Your task to perform on an android device: toggle data saver in the chrome app Image 0: 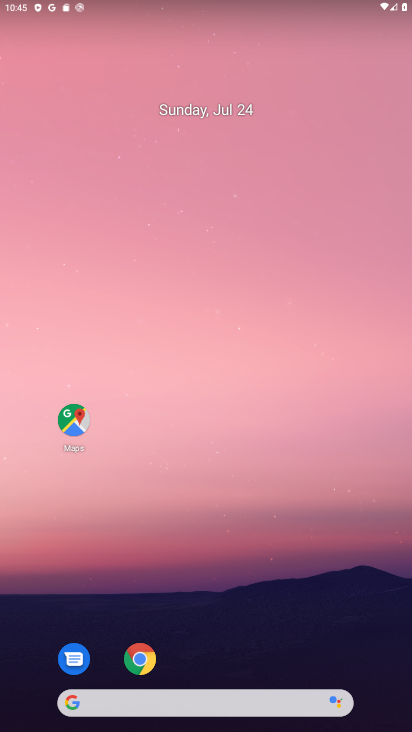
Step 0: drag from (169, 692) to (189, 213)
Your task to perform on an android device: toggle data saver in the chrome app Image 1: 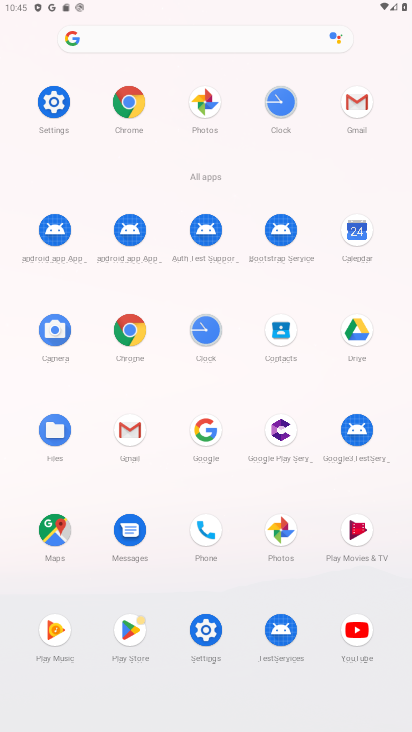
Step 1: click (133, 105)
Your task to perform on an android device: toggle data saver in the chrome app Image 2: 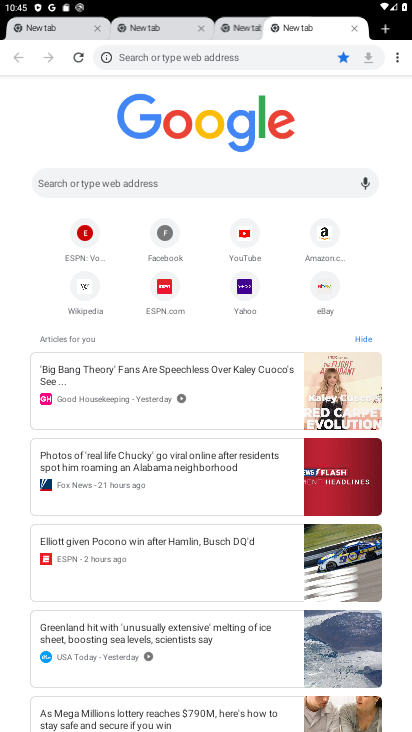
Step 2: click (403, 55)
Your task to perform on an android device: toggle data saver in the chrome app Image 3: 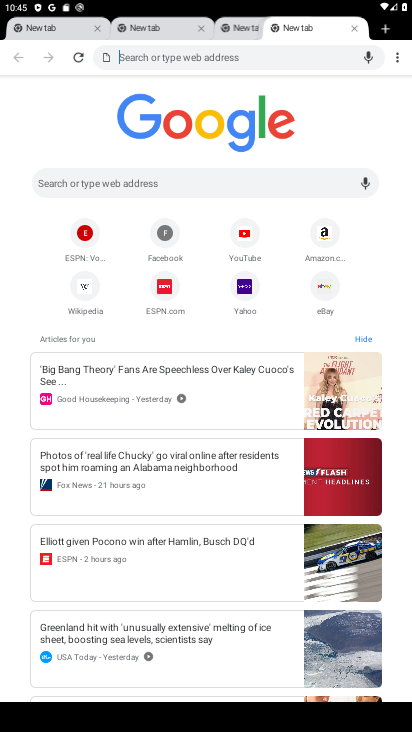
Step 3: click (397, 53)
Your task to perform on an android device: toggle data saver in the chrome app Image 4: 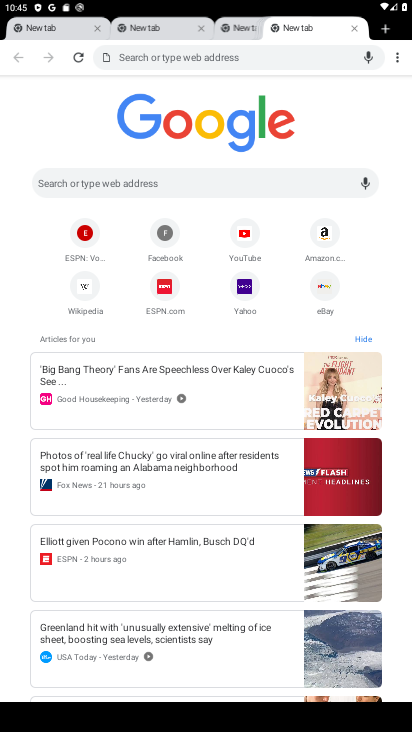
Step 4: click (405, 50)
Your task to perform on an android device: toggle data saver in the chrome app Image 5: 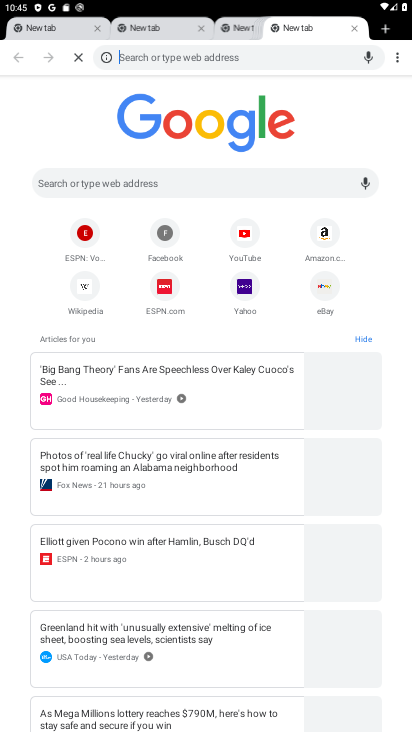
Step 5: click (405, 50)
Your task to perform on an android device: toggle data saver in the chrome app Image 6: 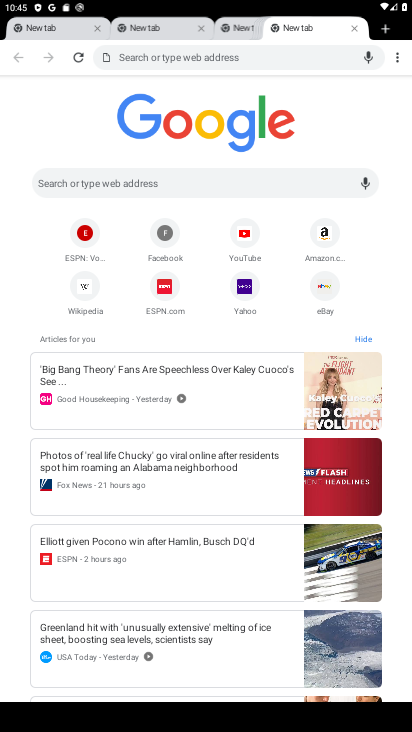
Step 6: click (400, 61)
Your task to perform on an android device: toggle data saver in the chrome app Image 7: 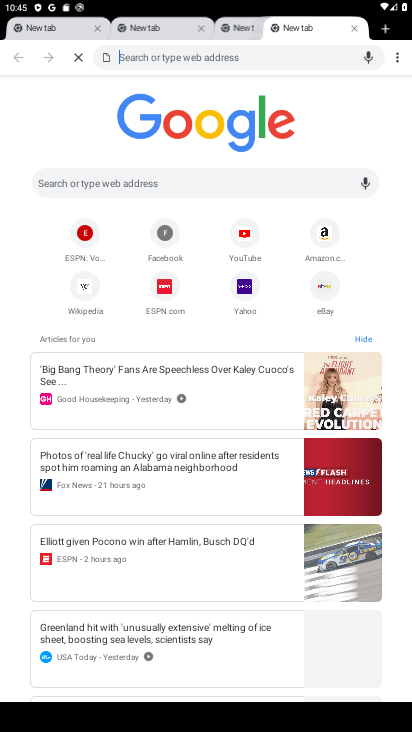
Step 7: click (400, 61)
Your task to perform on an android device: toggle data saver in the chrome app Image 8: 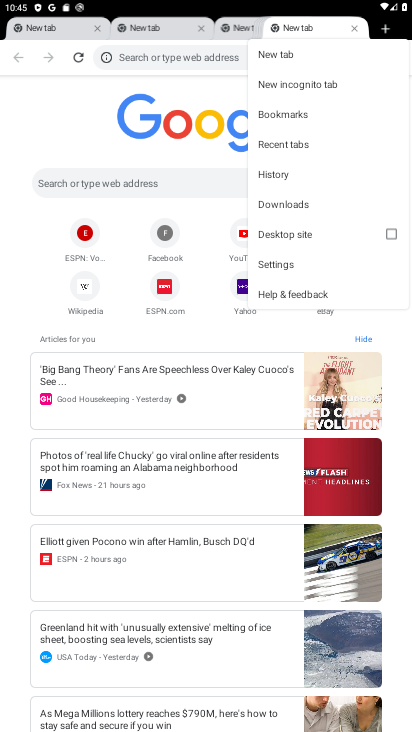
Step 8: click (285, 256)
Your task to perform on an android device: toggle data saver in the chrome app Image 9: 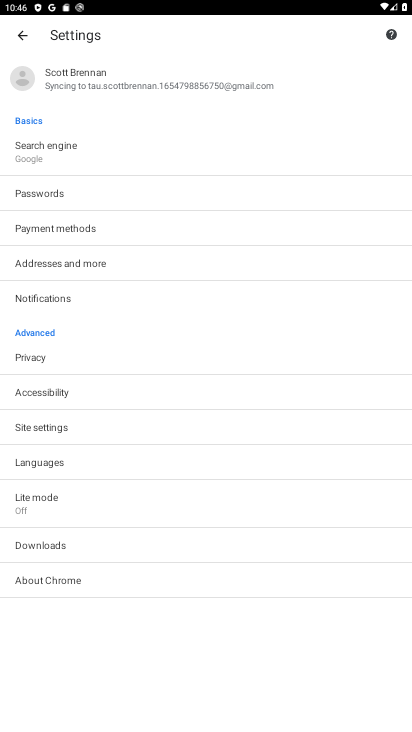
Step 9: click (67, 508)
Your task to perform on an android device: toggle data saver in the chrome app Image 10: 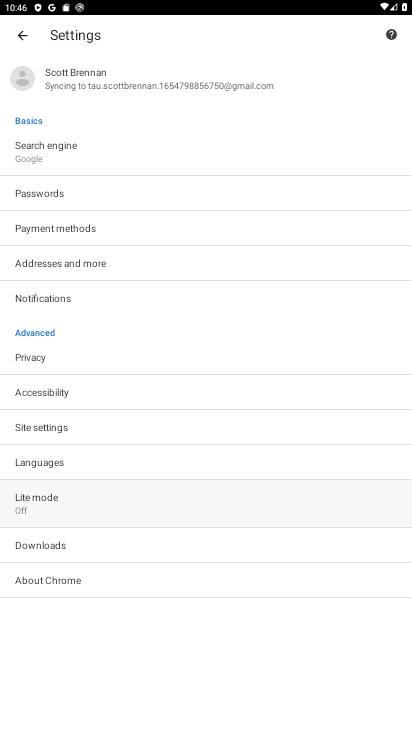
Step 10: click (67, 508)
Your task to perform on an android device: toggle data saver in the chrome app Image 11: 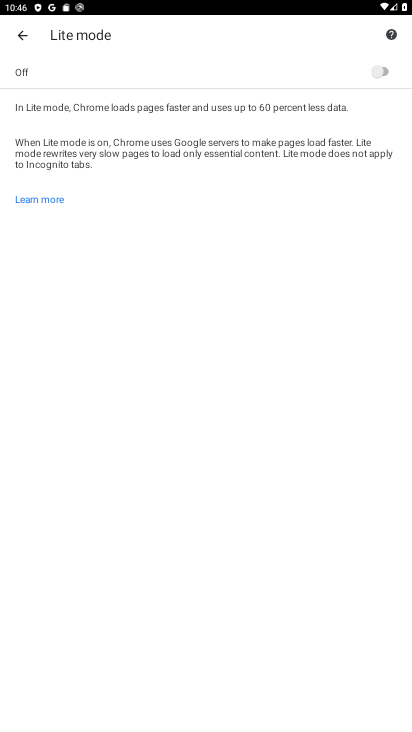
Step 11: click (375, 65)
Your task to perform on an android device: toggle data saver in the chrome app Image 12: 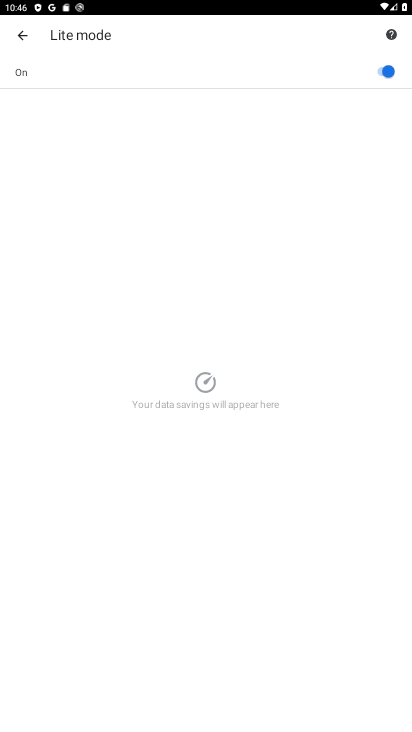
Step 12: task complete